Your task to perform on an android device: Show the shopping cart on bestbuy. Search for logitech g933 on bestbuy, select the first entry, and add it to the cart. Image 0: 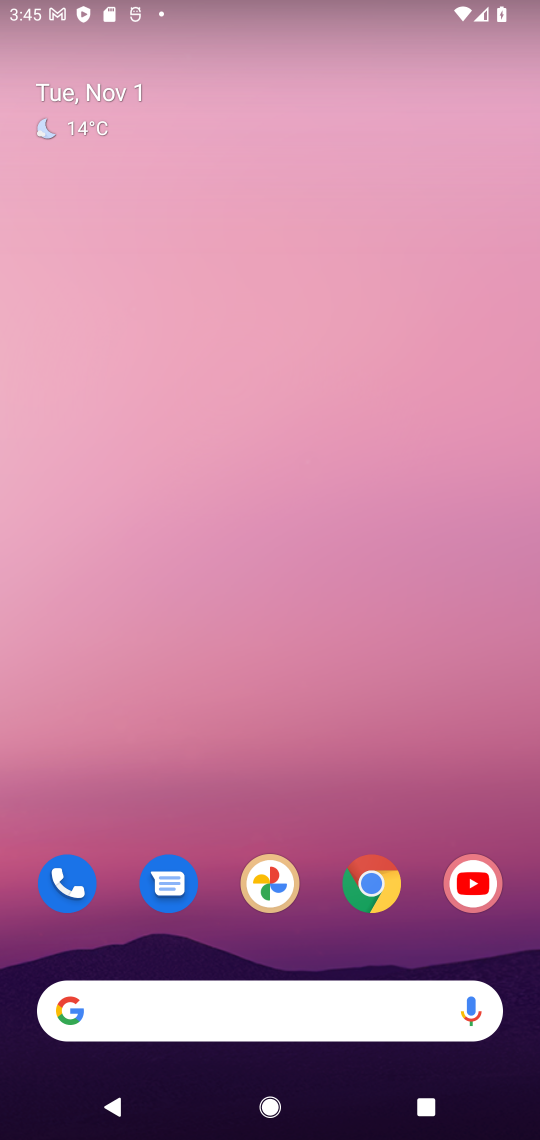
Step 0: click (374, 888)
Your task to perform on an android device: Show the shopping cart on bestbuy. Search for logitech g933 on bestbuy, select the first entry, and add it to the cart. Image 1: 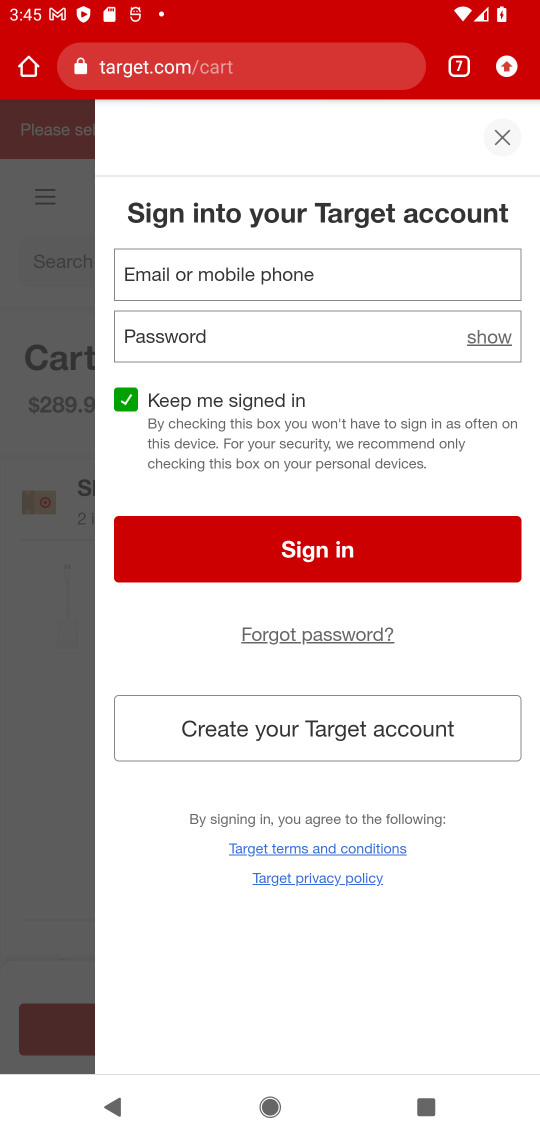
Step 1: click (446, 74)
Your task to perform on an android device: Show the shopping cart on bestbuy. Search for logitech g933 on bestbuy, select the first entry, and add it to the cart. Image 2: 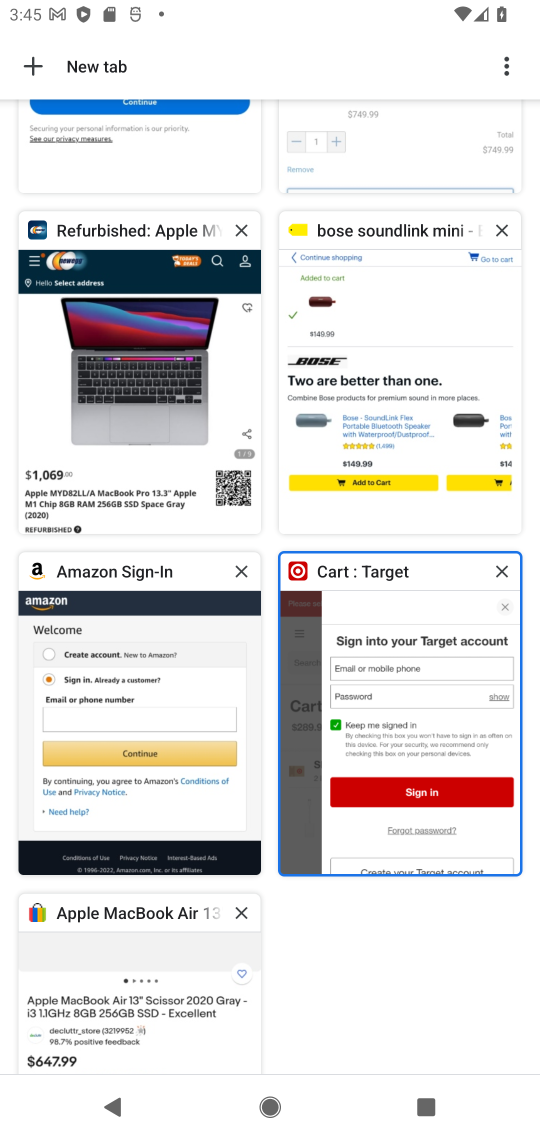
Step 2: click (402, 318)
Your task to perform on an android device: Show the shopping cart on bestbuy. Search for logitech g933 on bestbuy, select the first entry, and add it to the cart. Image 3: 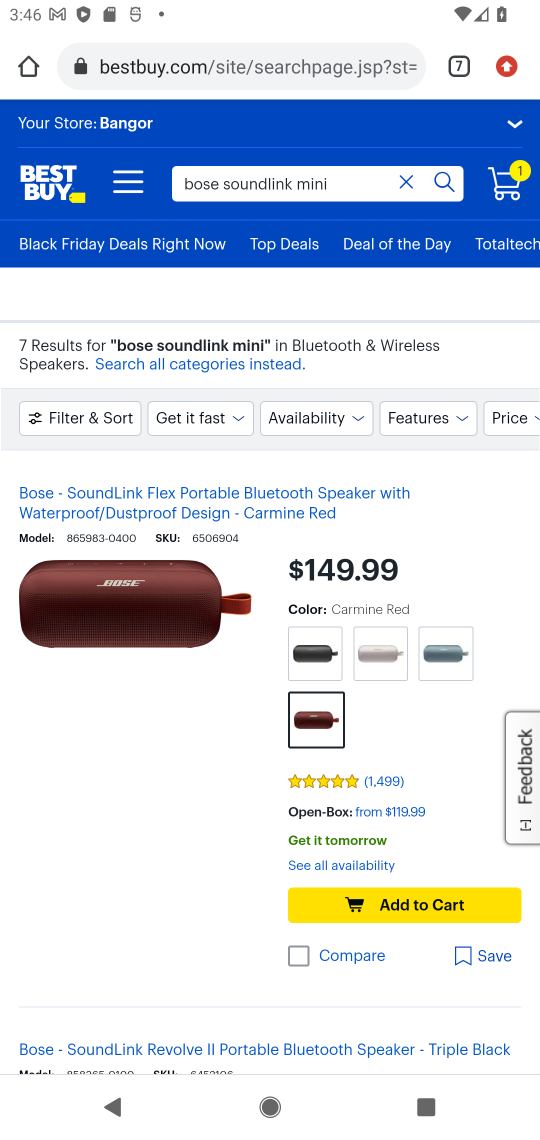
Step 3: click (407, 185)
Your task to perform on an android device: Show the shopping cart on bestbuy. Search for logitech g933 on bestbuy, select the first entry, and add it to the cart. Image 4: 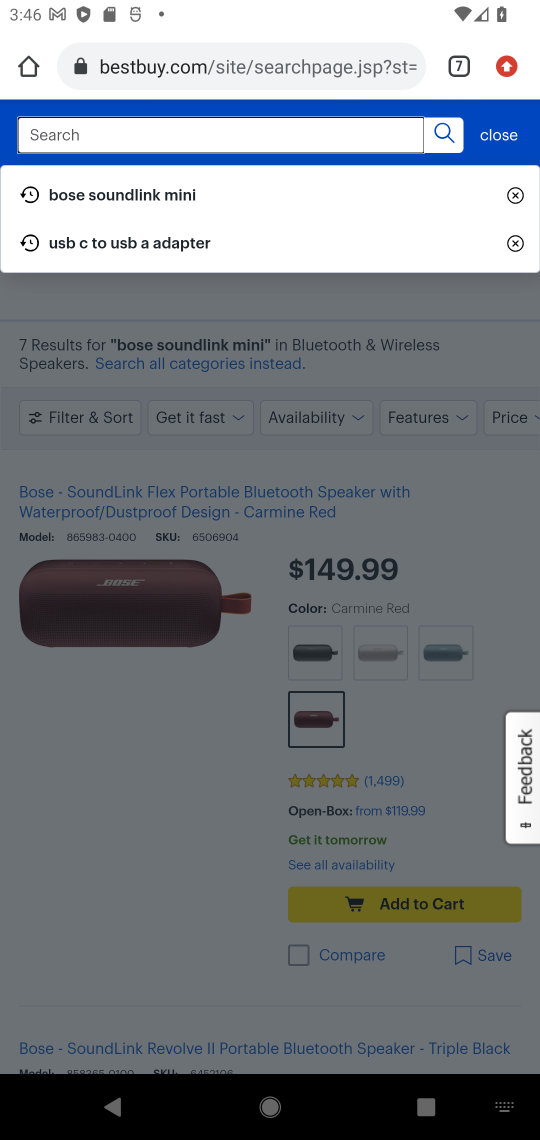
Step 4: type "logitech g933 "
Your task to perform on an android device: Show the shopping cart on bestbuy. Search for logitech g933 on bestbuy, select the first entry, and add it to the cart. Image 5: 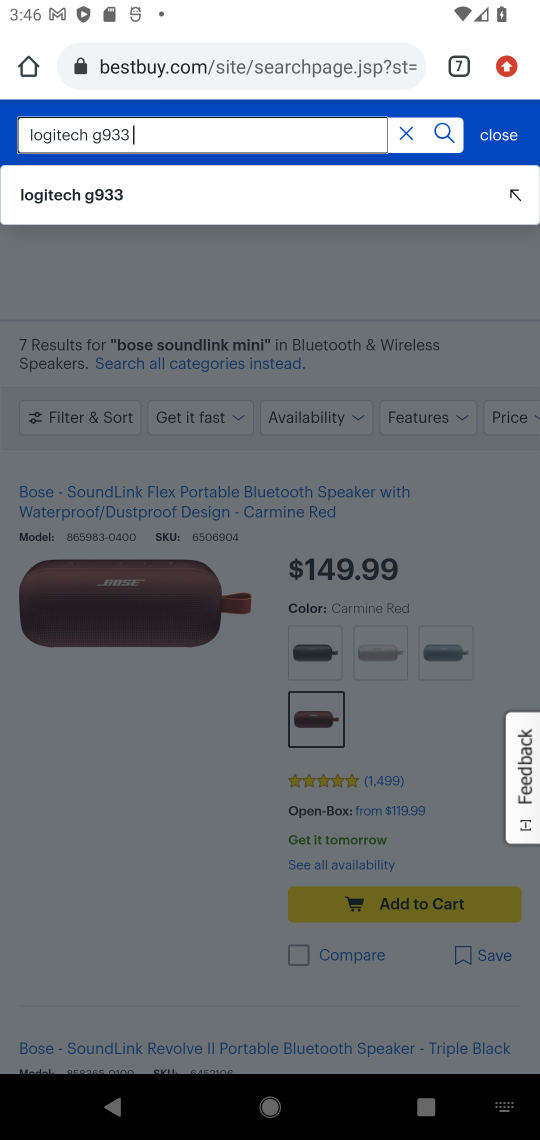
Step 5: click (66, 194)
Your task to perform on an android device: Show the shopping cart on bestbuy. Search for logitech g933 on bestbuy, select the first entry, and add it to the cart. Image 6: 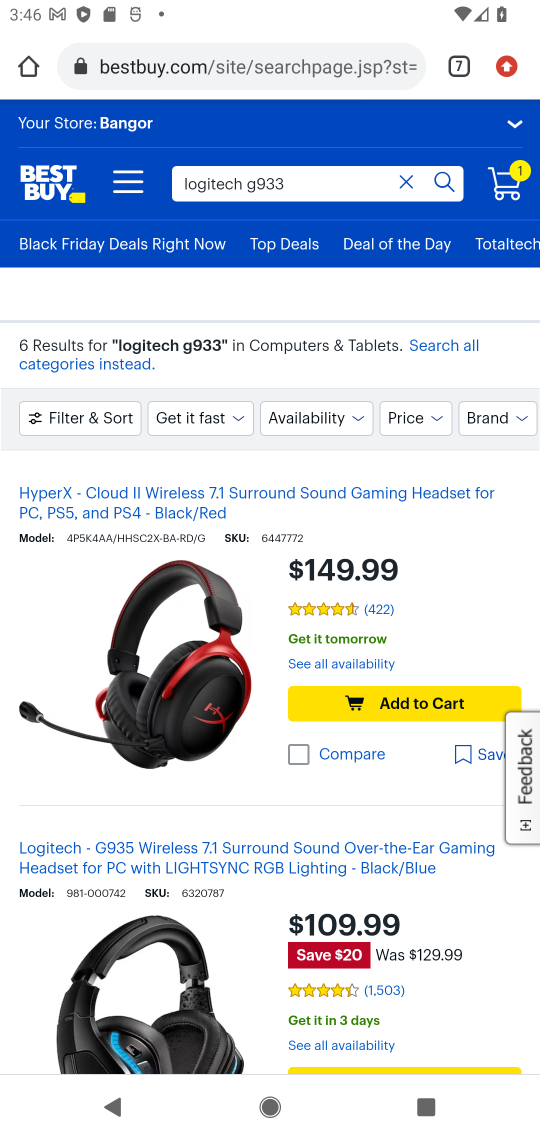
Step 6: click (375, 696)
Your task to perform on an android device: Show the shopping cart on bestbuy. Search for logitech g933 on bestbuy, select the first entry, and add it to the cart. Image 7: 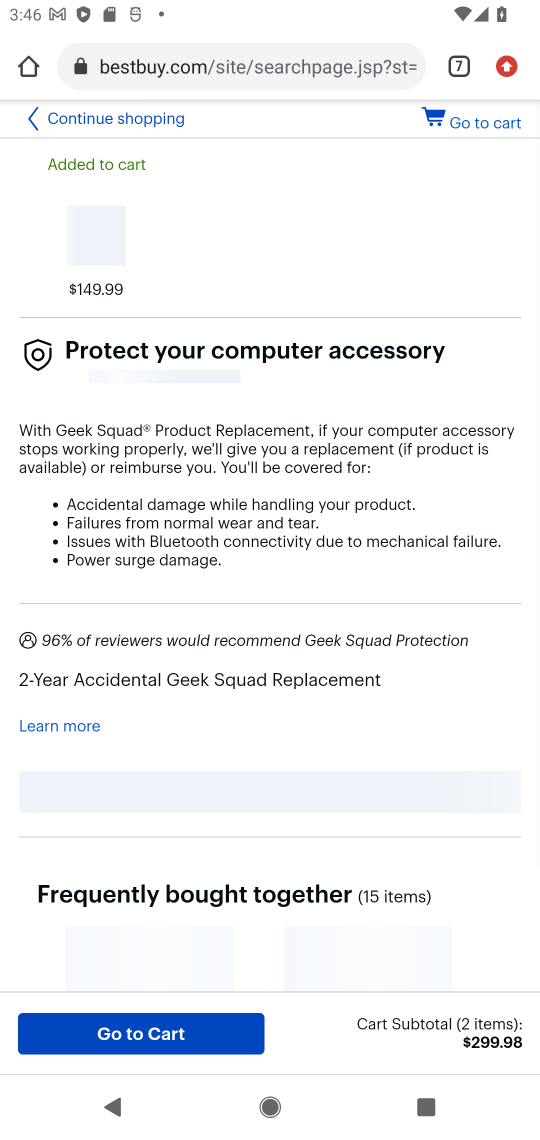
Step 7: task complete